Your task to perform on an android device: Open accessibility settings Image 0: 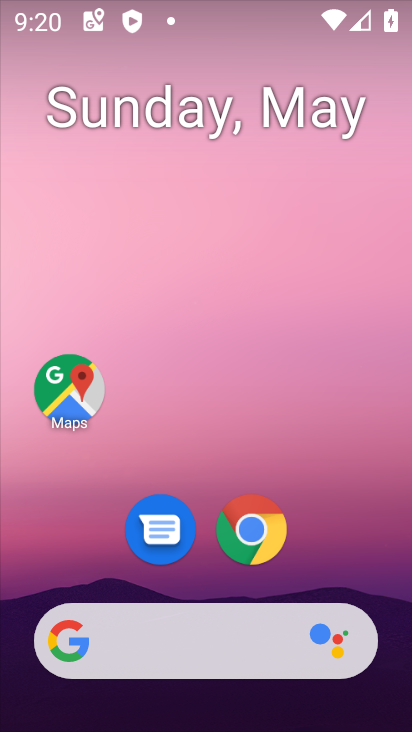
Step 0: drag from (320, 557) to (250, 12)
Your task to perform on an android device: Open accessibility settings Image 1: 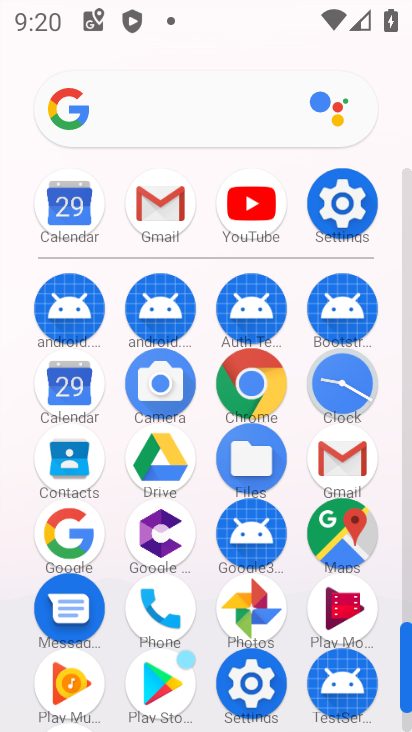
Step 1: click (322, 203)
Your task to perform on an android device: Open accessibility settings Image 2: 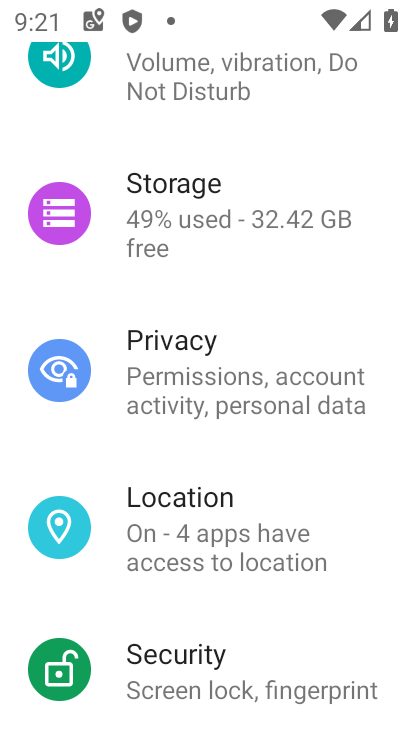
Step 2: drag from (237, 608) to (225, 149)
Your task to perform on an android device: Open accessibility settings Image 3: 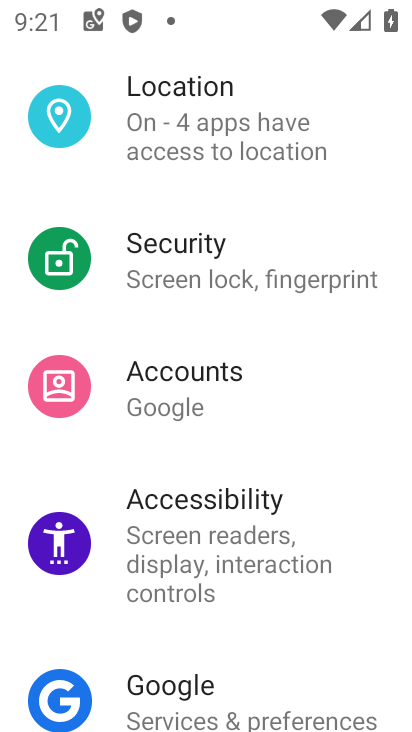
Step 3: click (179, 524)
Your task to perform on an android device: Open accessibility settings Image 4: 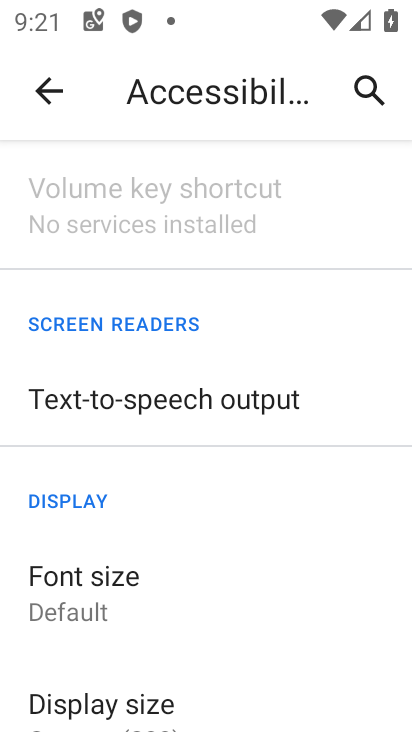
Step 4: task complete